Your task to perform on an android device: Open maps Image 0: 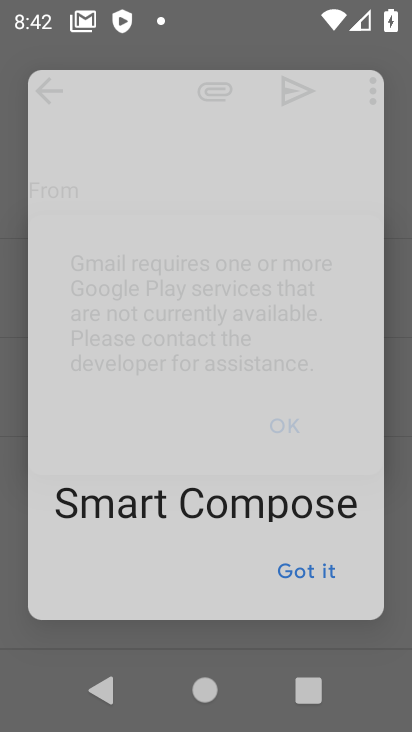
Step 0: press home button
Your task to perform on an android device: Open maps Image 1: 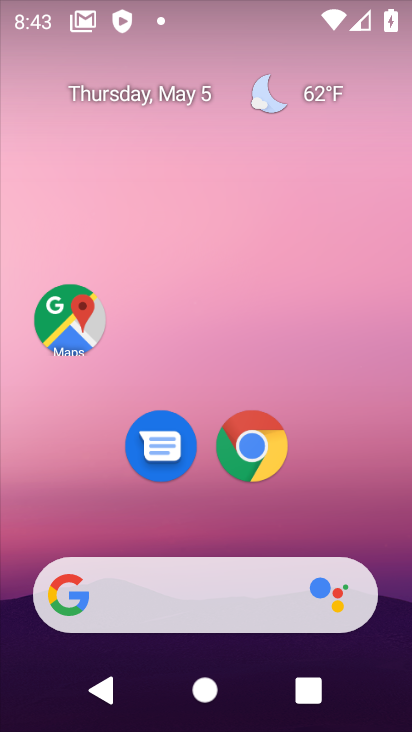
Step 1: drag from (272, 569) to (345, 146)
Your task to perform on an android device: Open maps Image 2: 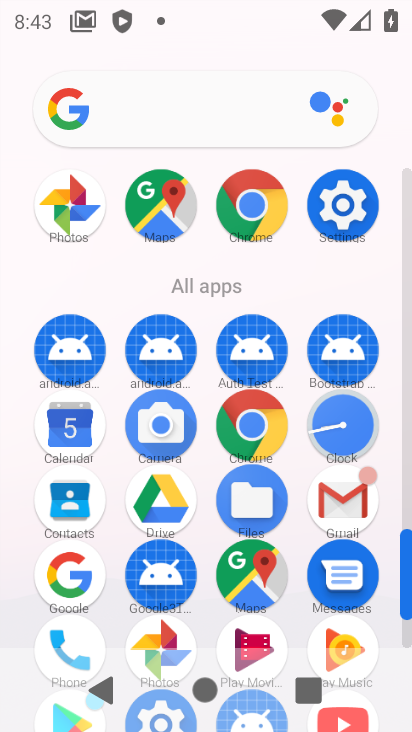
Step 2: click (159, 204)
Your task to perform on an android device: Open maps Image 3: 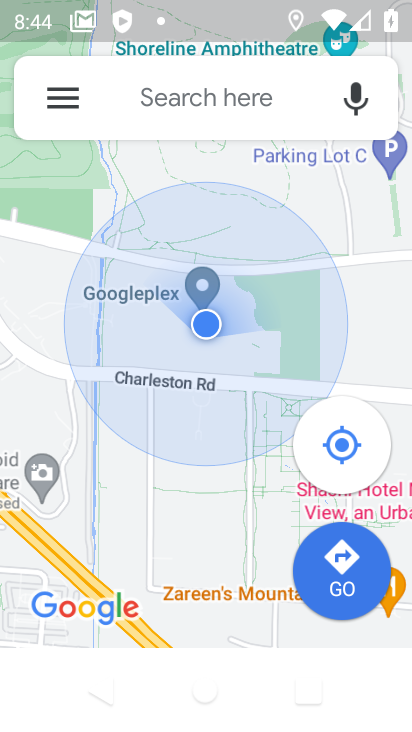
Step 3: task complete